Your task to perform on an android device: Turn on the flashlight Image 0: 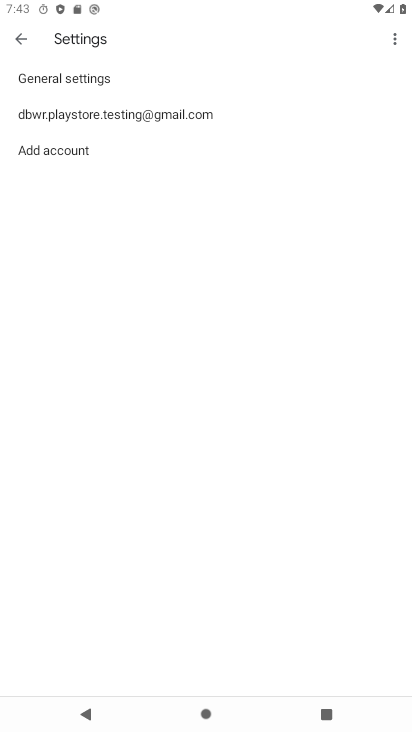
Step 0: press home button
Your task to perform on an android device: Turn on the flashlight Image 1: 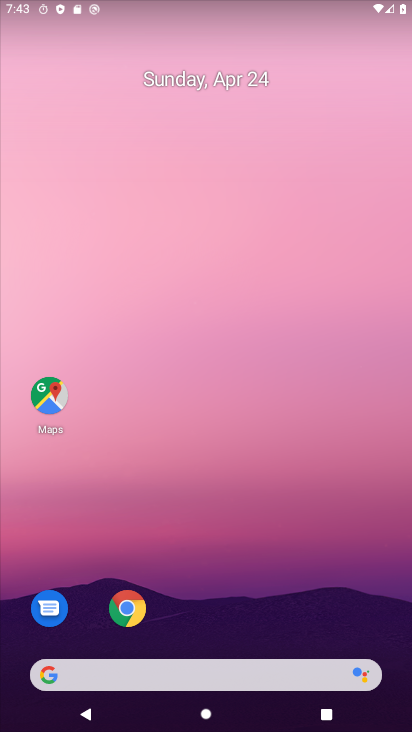
Step 1: press home button
Your task to perform on an android device: Turn on the flashlight Image 2: 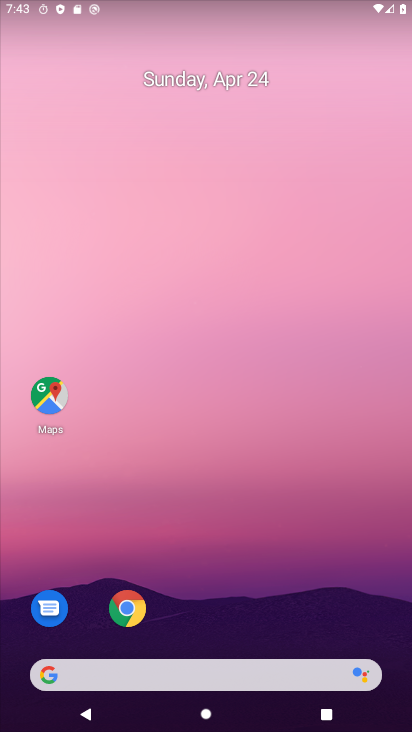
Step 2: drag from (287, 611) to (267, 104)
Your task to perform on an android device: Turn on the flashlight Image 3: 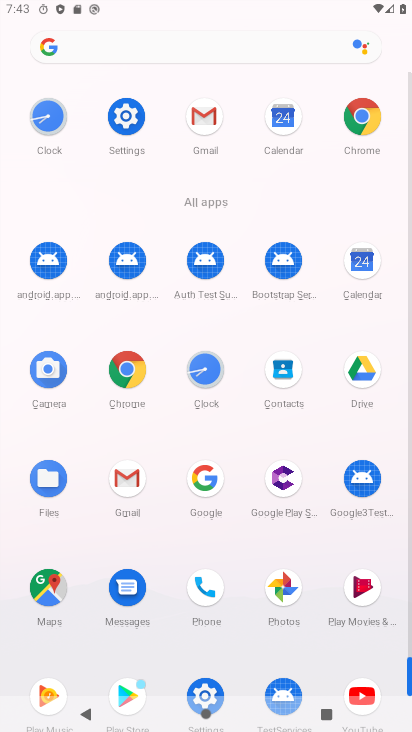
Step 3: click (132, 115)
Your task to perform on an android device: Turn on the flashlight Image 4: 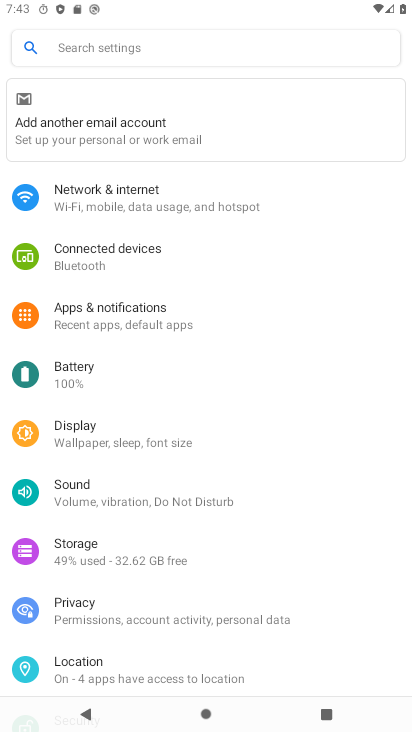
Step 4: click (160, 44)
Your task to perform on an android device: Turn on the flashlight Image 5: 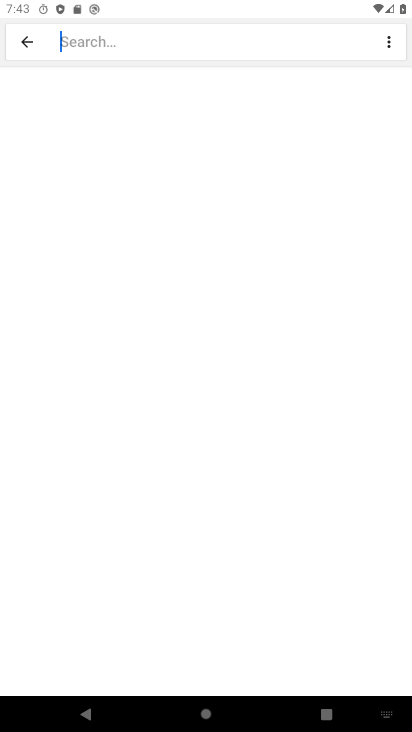
Step 5: type "flashlight"
Your task to perform on an android device: Turn on the flashlight Image 6: 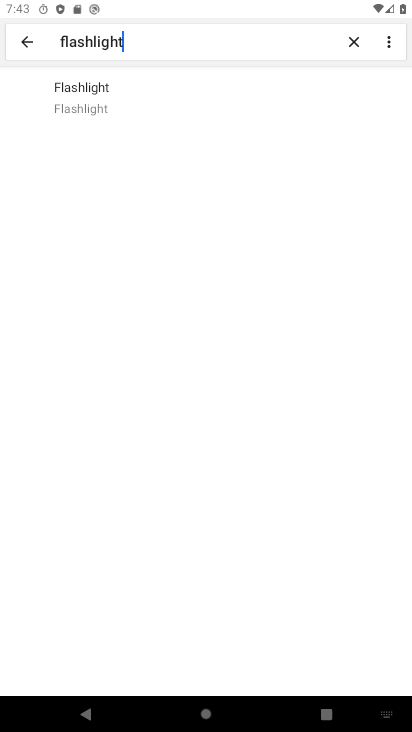
Step 6: click (67, 80)
Your task to perform on an android device: Turn on the flashlight Image 7: 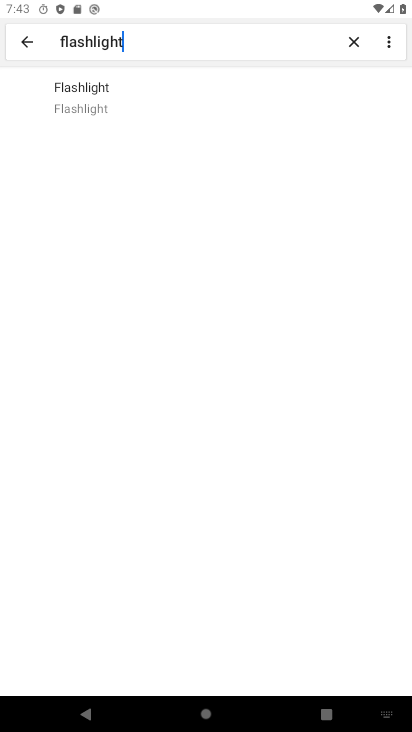
Step 7: task complete